Your task to perform on an android device: install app "Flipkart Online Shopping App" Image 0: 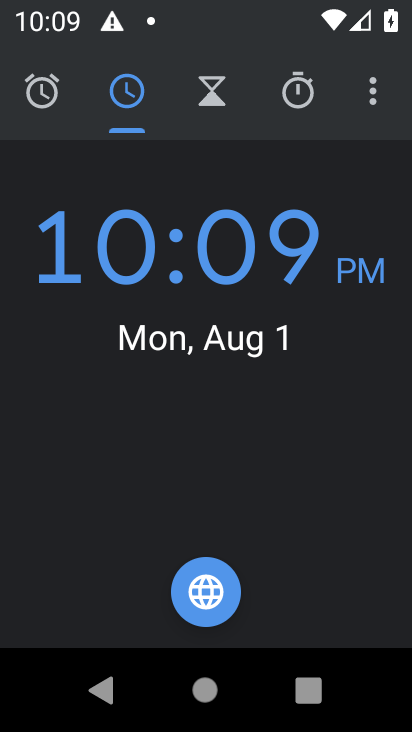
Step 0: press home button
Your task to perform on an android device: install app "Flipkart Online Shopping App" Image 1: 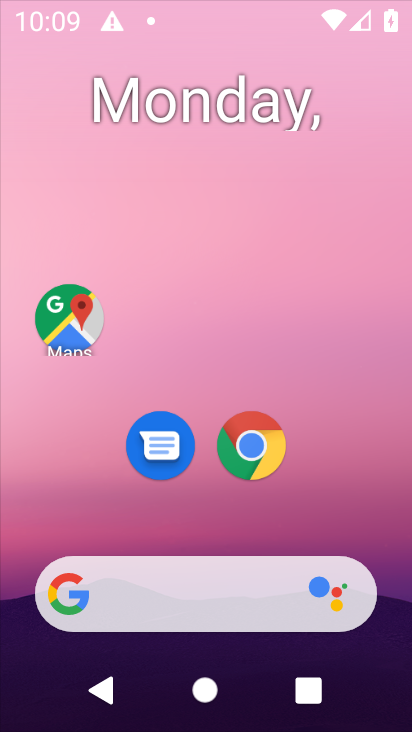
Step 1: drag from (379, 630) to (266, 50)
Your task to perform on an android device: install app "Flipkart Online Shopping App" Image 2: 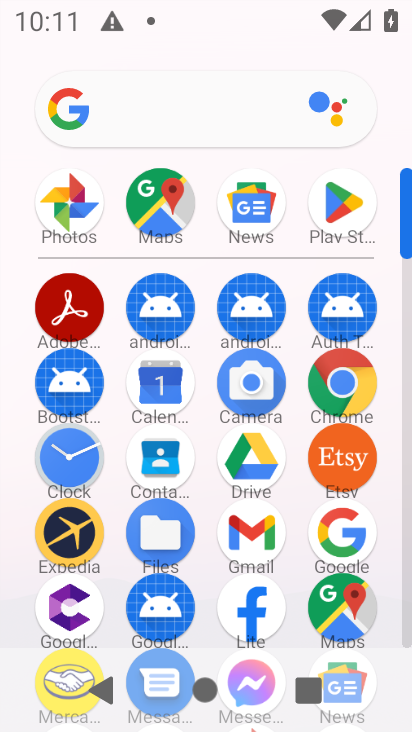
Step 2: click (312, 198)
Your task to perform on an android device: install app "Flipkart Online Shopping App" Image 3: 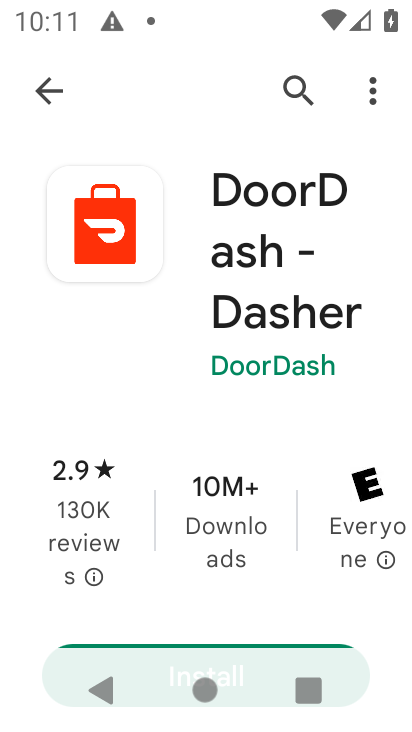
Step 3: press back button
Your task to perform on an android device: install app "Flipkart Online Shopping App" Image 4: 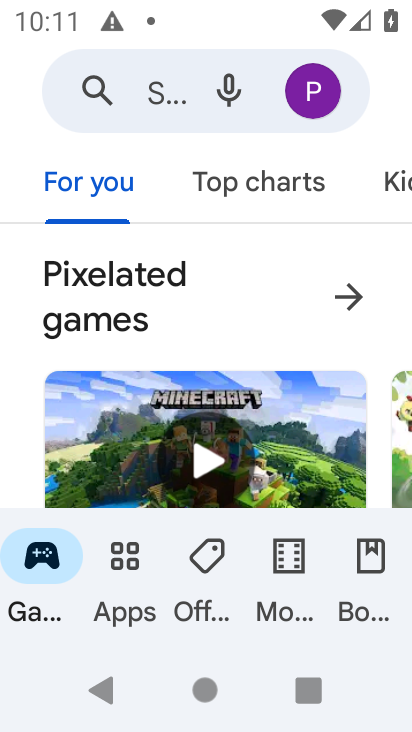
Step 4: click (134, 82)
Your task to perform on an android device: install app "Flipkart Online Shopping App" Image 5: 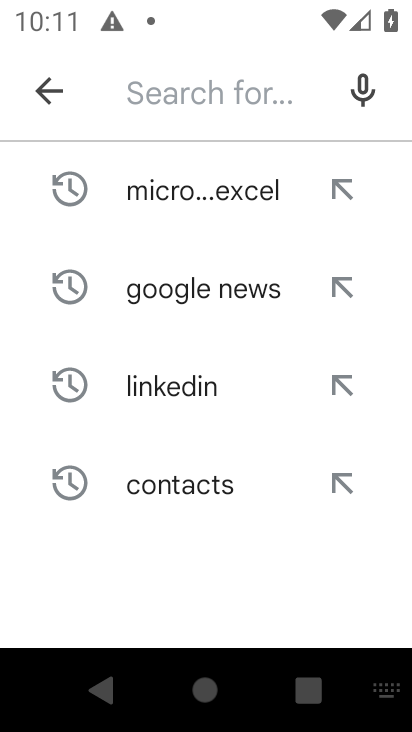
Step 5: type "Flipkart Online Shopping App"
Your task to perform on an android device: install app "Flipkart Online Shopping App" Image 6: 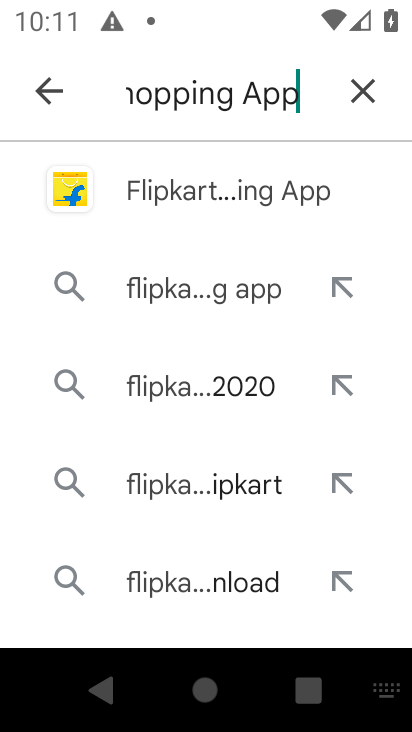
Step 6: click (163, 191)
Your task to perform on an android device: install app "Flipkart Online Shopping App" Image 7: 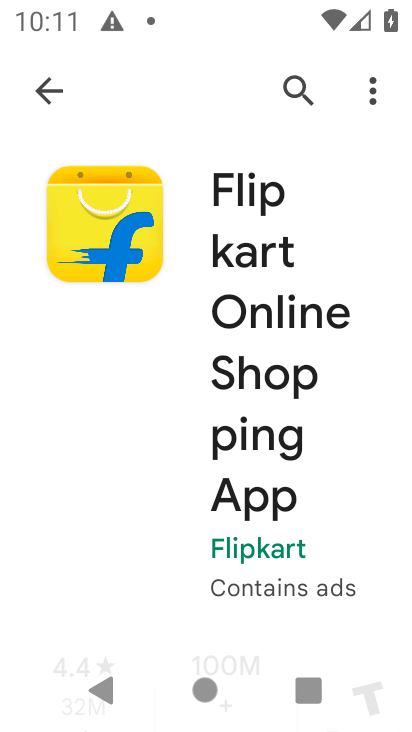
Step 7: drag from (259, 602) to (277, 202)
Your task to perform on an android device: install app "Flipkart Online Shopping App" Image 8: 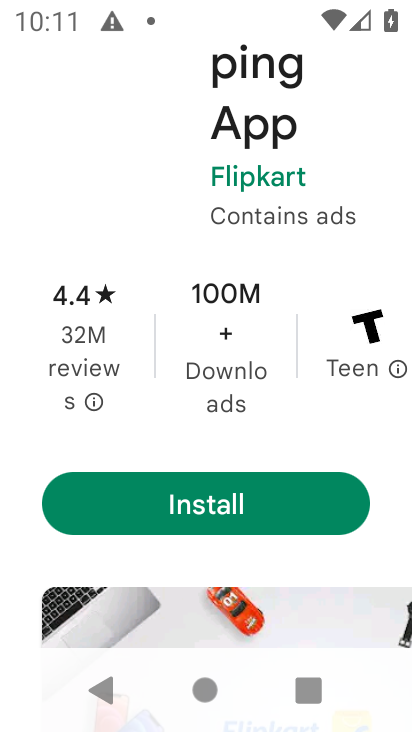
Step 8: click (206, 509)
Your task to perform on an android device: install app "Flipkart Online Shopping App" Image 9: 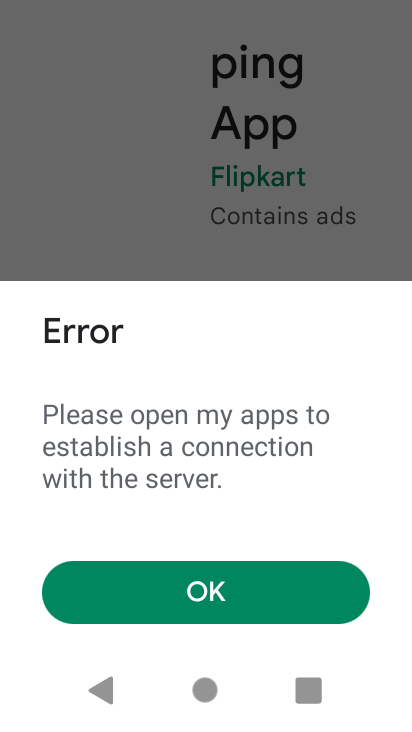
Step 9: task complete